Your task to perform on an android device: change the clock display to digital Image 0: 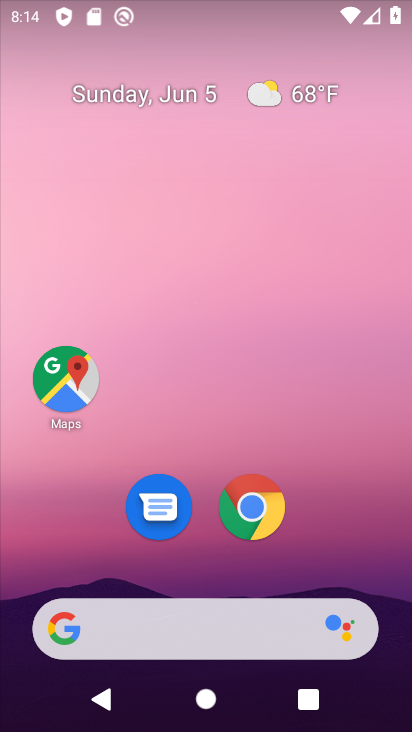
Step 0: drag from (225, 726) to (198, 157)
Your task to perform on an android device: change the clock display to digital Image 1: 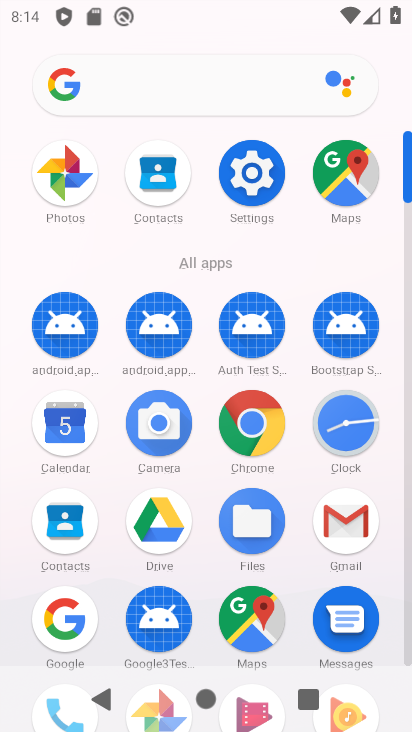
Step 1: click (342, 427)
Your task to perform on an android device: change the clock display to digital Image 2: 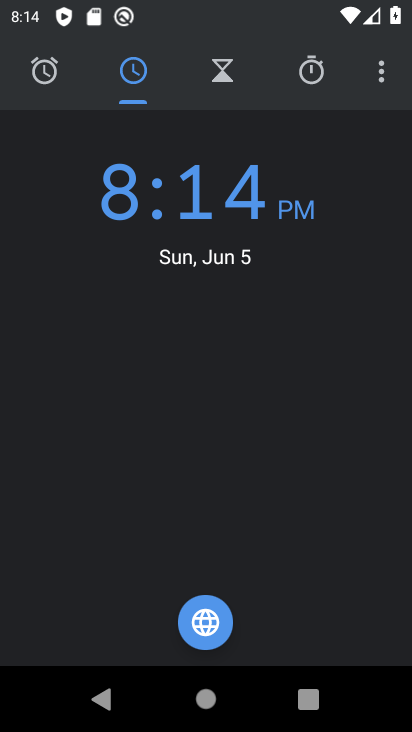
Step 2: click (384, 80)
Your task to perform on an android device: change the clock display to digital Image 3: 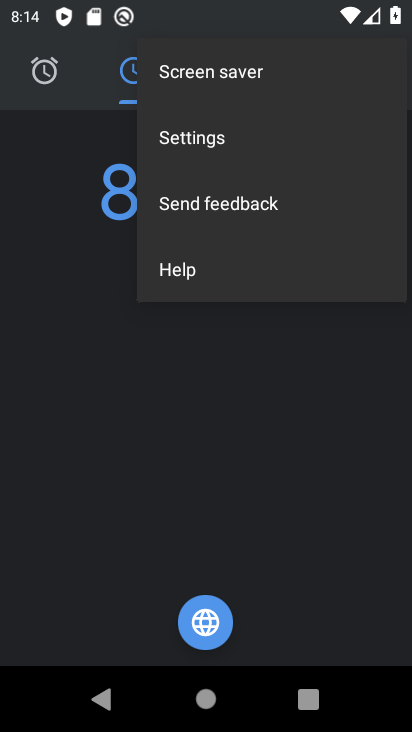
Step 3: click (213, 136)
Your task to perform on an android device: change the clock display to digital Image 4: 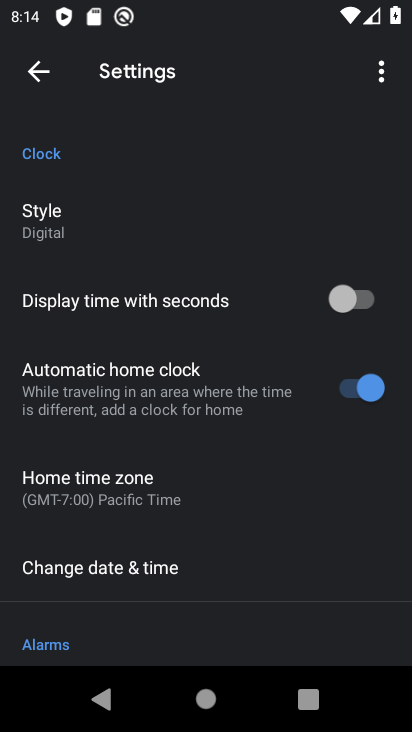
Step 4: task complete